Your task to perform on an android device: Open Yahoo.com Image 0: 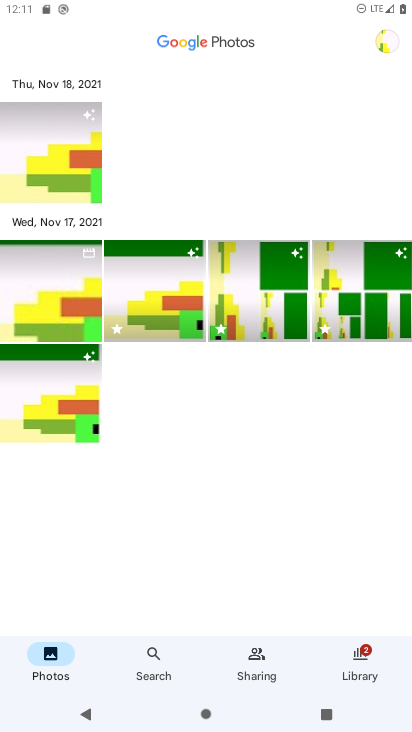
Step 0: press home button
Your task to perform on an android device: Open Yahoo.com Image 1: 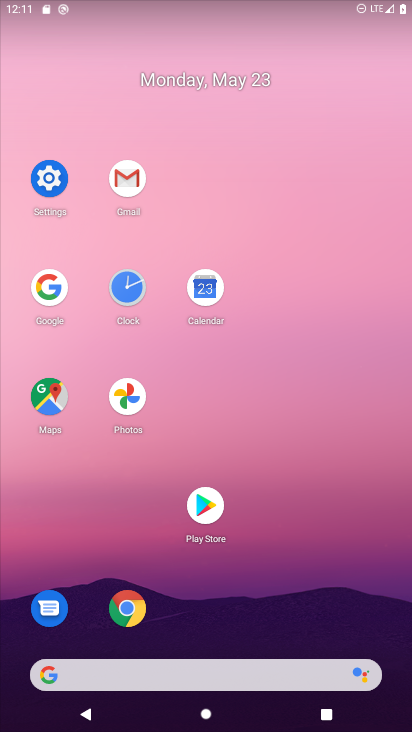
Step 1: click (124, 622)
Your task to perform on an android device: Open Yahoo.com Image 2: 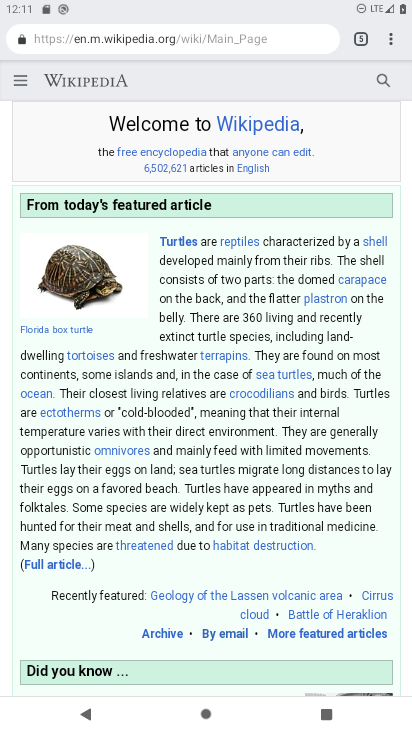
Step 2: click (368, 40)
Your task to perform on an android device: Open Yahoo.com Image 3: 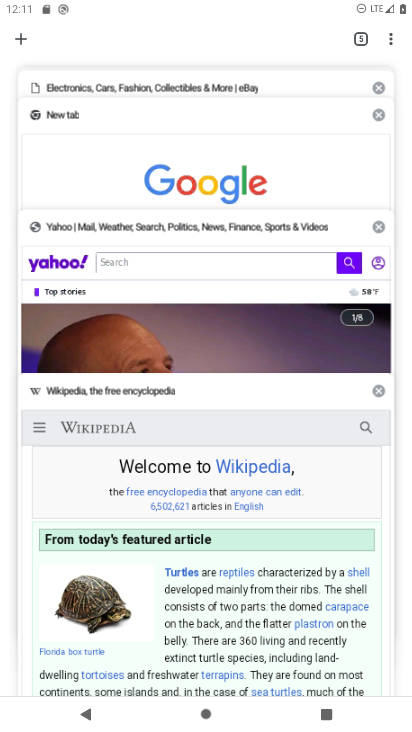
Step 3: click (176, 268)
Your task to perform on an android device: Open Yahoo.com Image 4: 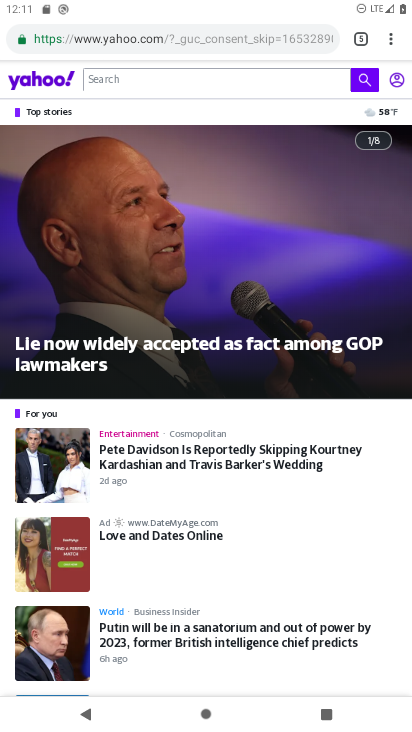
Step 4: task complete